Your task to perform on an android device: add a label to a message in the gmail app Image 0: 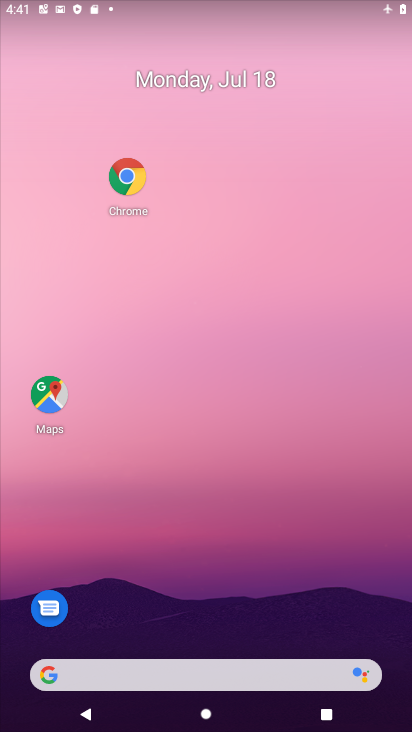
Step 0: drag from (158, 535) to (218, 37)
Your task to perform on an android device: add a label to a message in the gmail app Image 1: 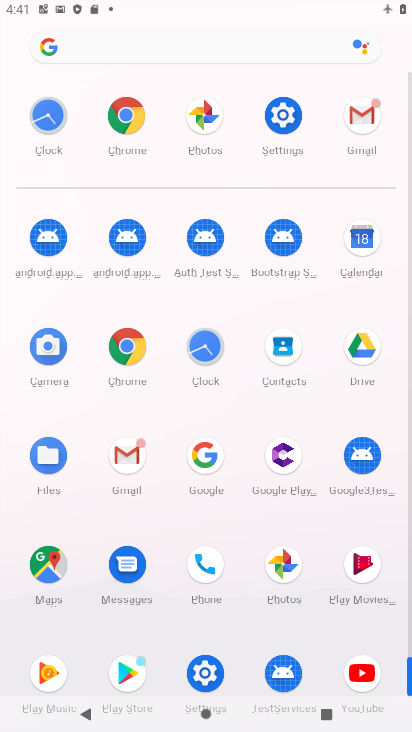
Step 1: click (131, 471)
Your task to perform on an android device: add a label to a message in the gmail app Image 2: 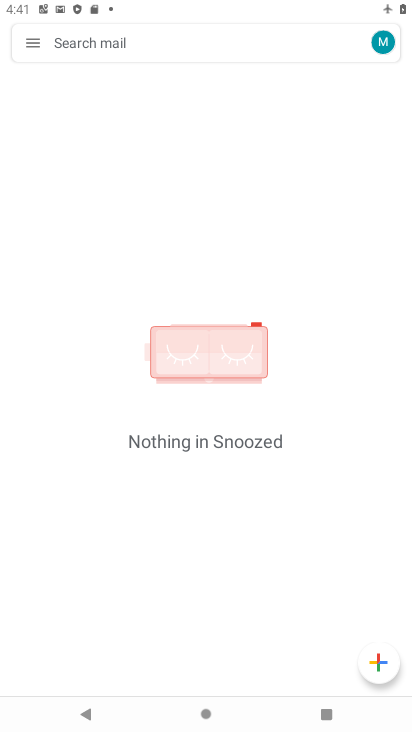
Step 2: click (34, 54)
Your task to perform on an android device: add a label to a message in the gmail app Image 3: 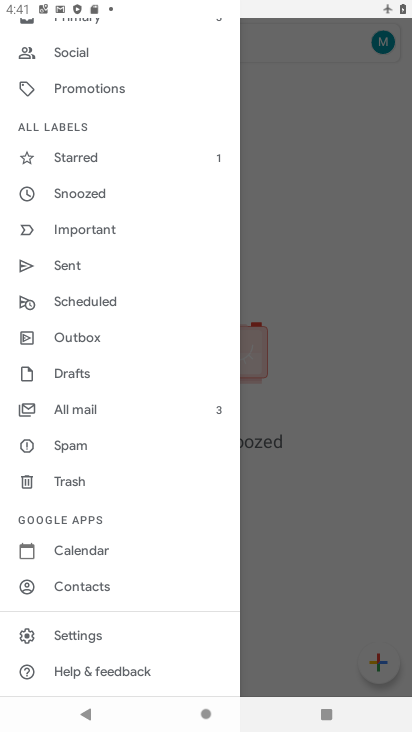
Step 3: click (71, 410)
Your task to perform on an android device: add a label to a message in the gmail app Image 4: 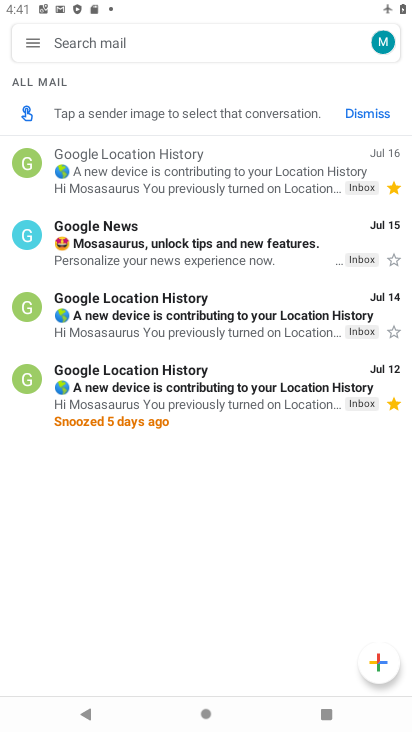
Step 4: click (255, 318)
Your task to perform on an android device: add a label to a message in the gmail app Image 5: 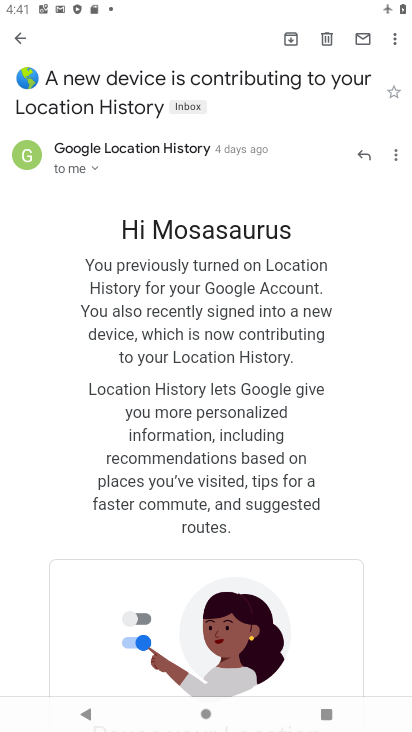
Step 5: click (389, 42)
Your task to perform on an android device: add a label to a message in the gmail app Image 6: 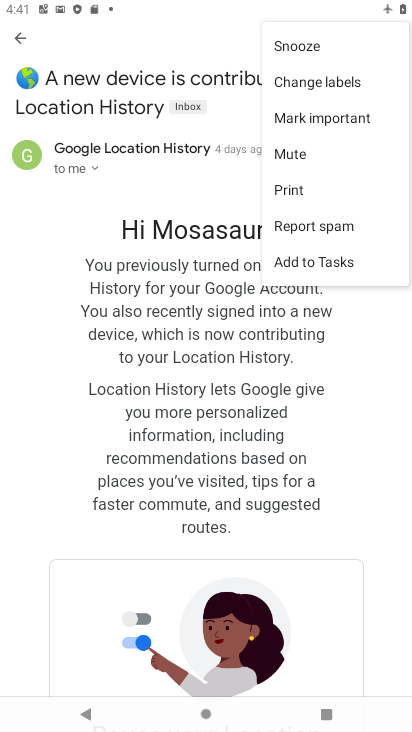
Step 6: click (316, 86)
Your task to perform on an android device: add a label to a message in the gmail app Image 7: 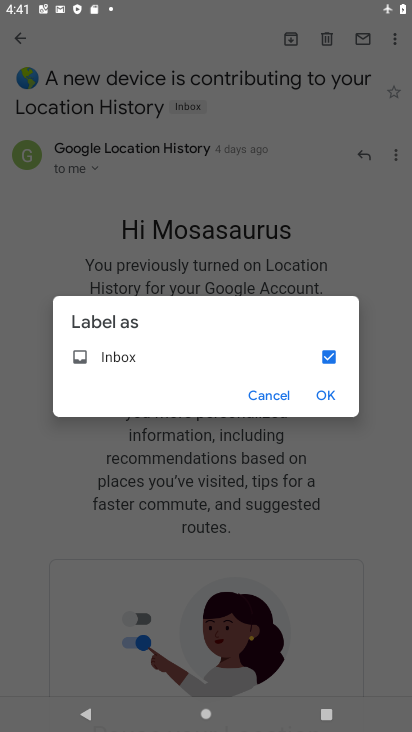
Step 7: click (324, 400)
Your task to perform on an android device: add a label to a message in the gmail app Image 8: 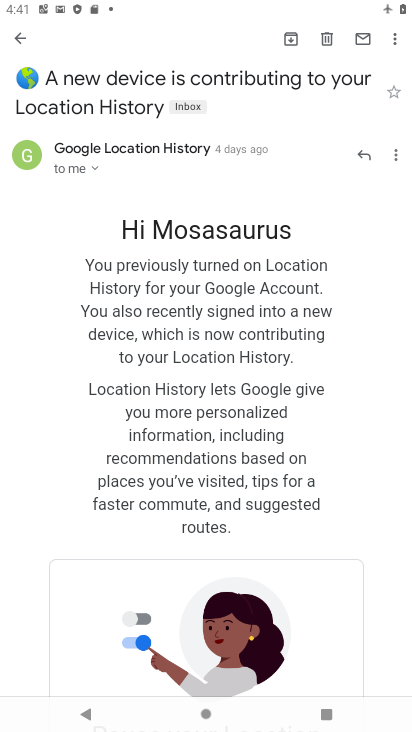
Step 8: task complete